Your task to perform on an android device: Show me popular games on the Play Store Image 0: 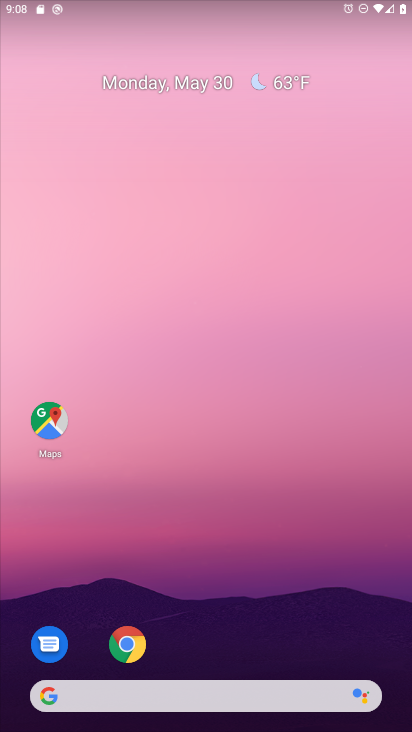
Step 0: drag from (195, 641) to (180, 50)
Your task to perform on an android device: Show me popular games on the Play Store Image 1: 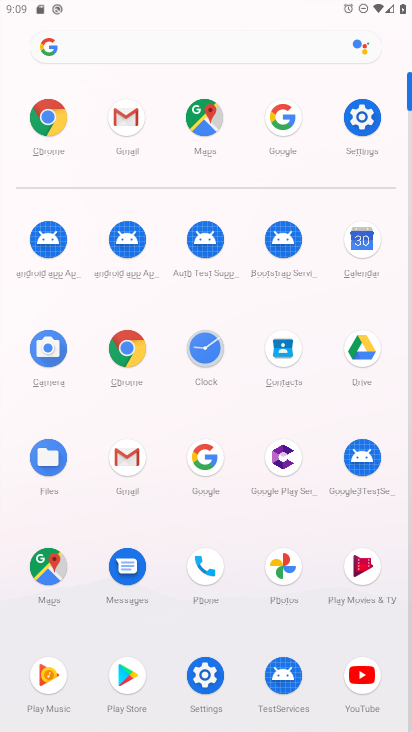
Step 1: click (125, 673)
Your task to perform on an android device: Show me popular games on the Play Store Image 2: 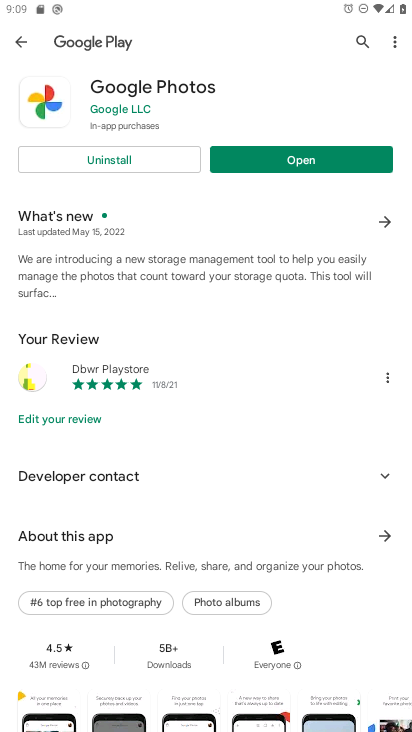
Step 2: press back button
Your task to perform on an android device: Show me popular games on the Play Store Image 3: 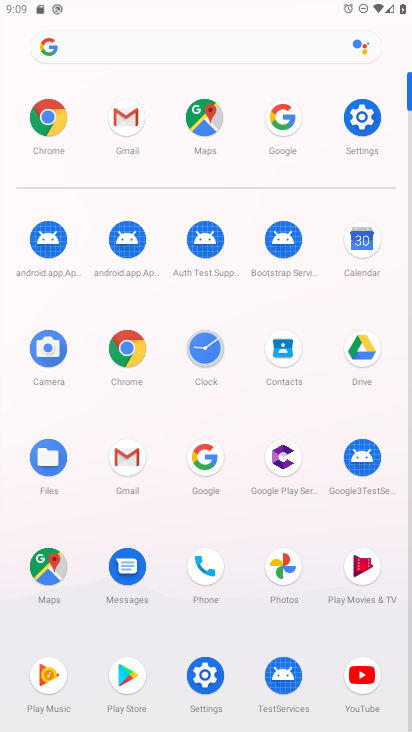
Step 3: click (140, 675)
Your task to perform on an android device: Show me popular games on the Play Store Image 4: 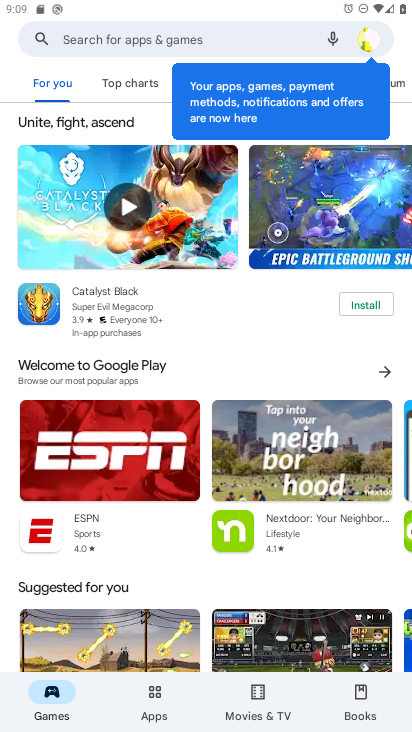
Step 4: drag from (128, 544) to (110, 196)
Your task to perform on an android device: Show me popular games on the Play Store Image 5: 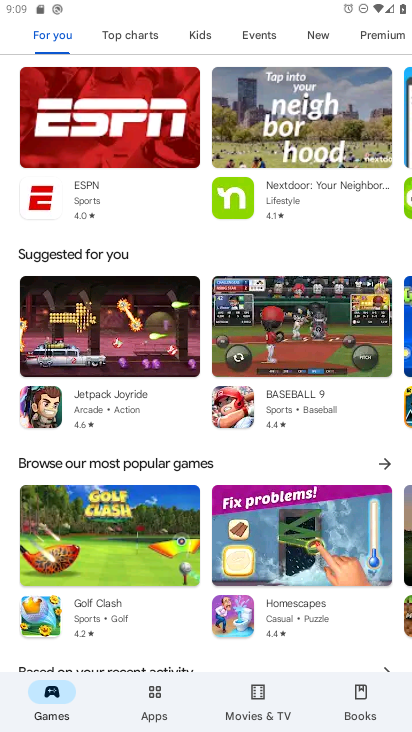
Step 5: click (380, 460)
Your task to perform on an android device: Show me popular games on the Play Store Image 6: 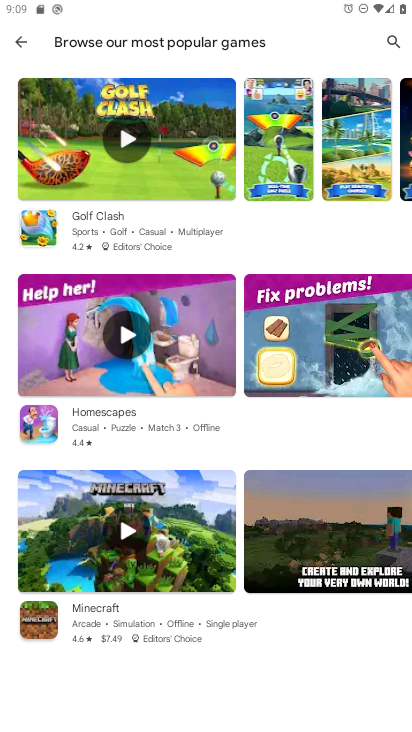
Step 6: task complete